Your task to perform on an android device: turn smart compose on in the gmail app Image 0: 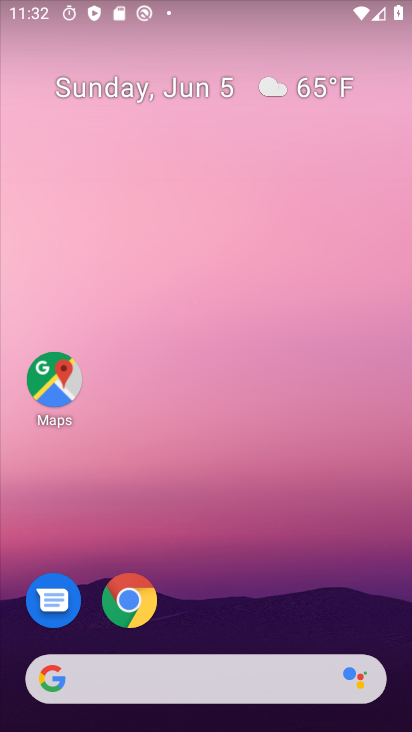
Step 0: drag from (270, 522) to (172, 10)
Your task to perform on an android device: turn smart compose on in the gmail app Image 1: 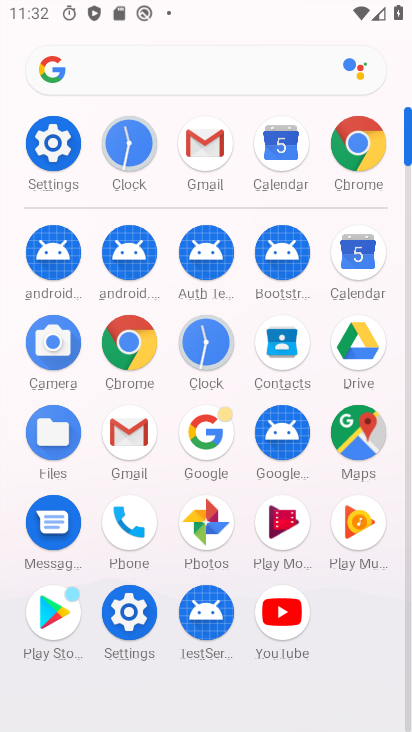
Step 1: click (130, 434)
Your task to perform on an android device: turn smart compose on in the gmail app Image 2: 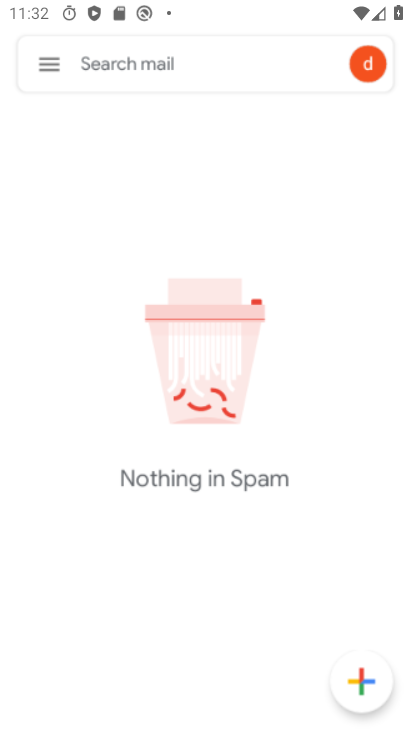
Step 2: click (118, 434)
Your task to perform on an android device: turn smart compose on in the gmail app Image 3: 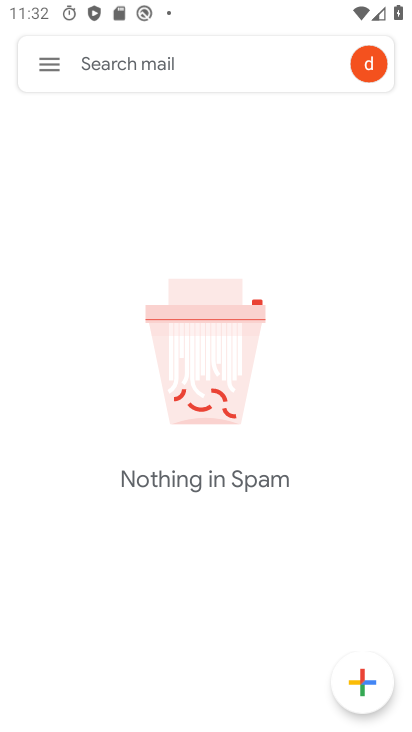
Step 3: click (47, 51)
Your task to perform on an android device: turn smart compose on in the gmail app Image 4: 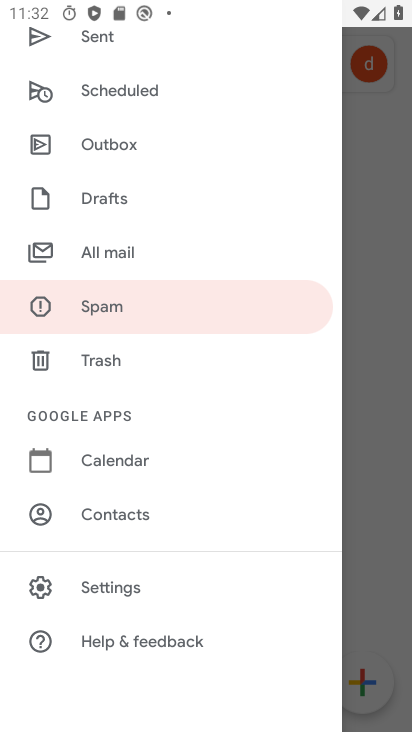
Step 4: click (117, 591)
Your task to perform on an android device: turn smart compose on in the gmail app Image 5: 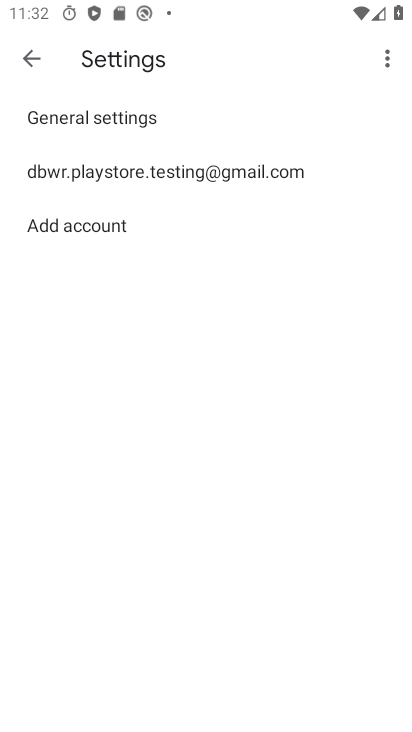
Step 5: click (133, 177)
Your task to perform on an android device: turn smart compose on in the gmail app Image 6: 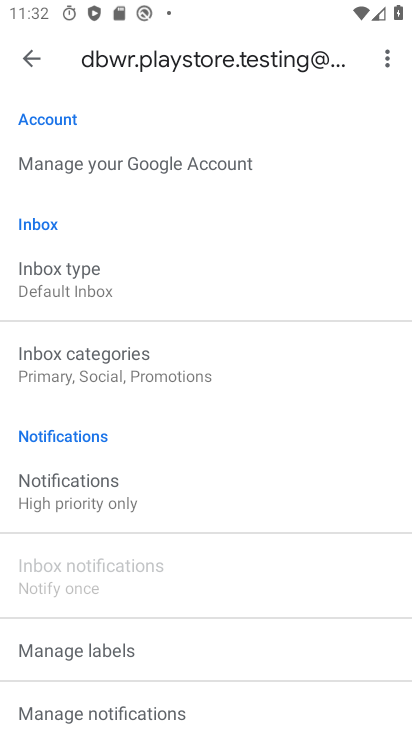
Step 6: task complete